Your task to perform on an android device: change keyboard looks Image 0: 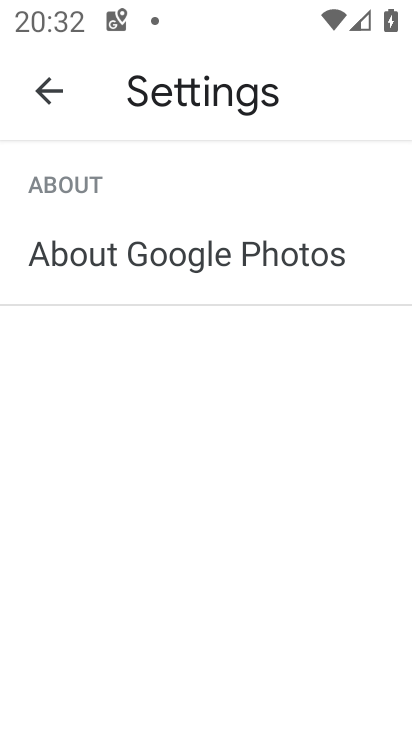
Step 0: click (52, 93)
Your task to perform on an android device: change keyboard looks Image 1: 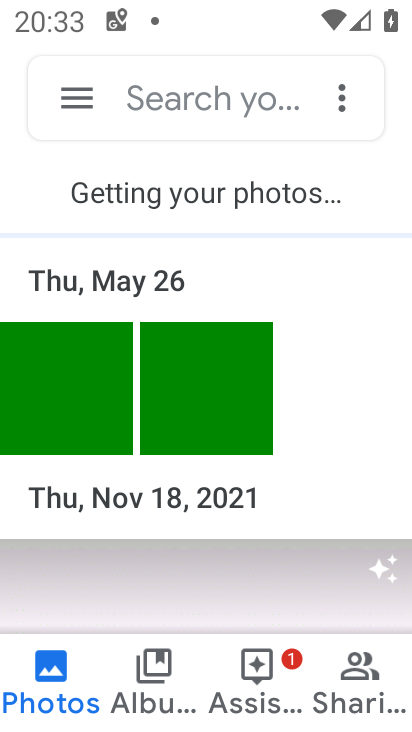
Step 1: press back button
Your task to perform on an android device: change keyboard looks Image 2: 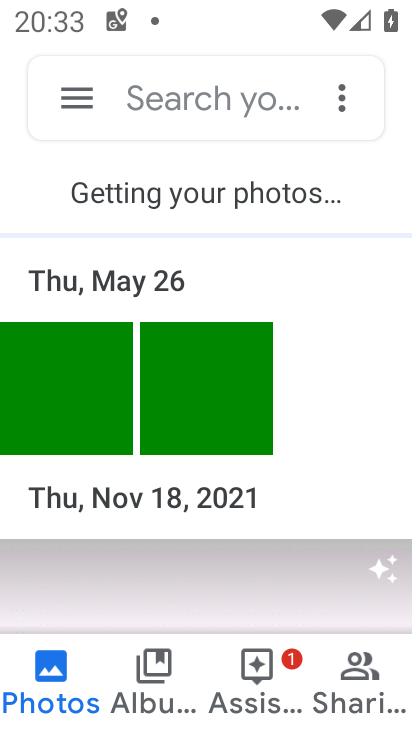
Step 2: press back button
Your task to perform on an android device: change keyboard looks Image 3: 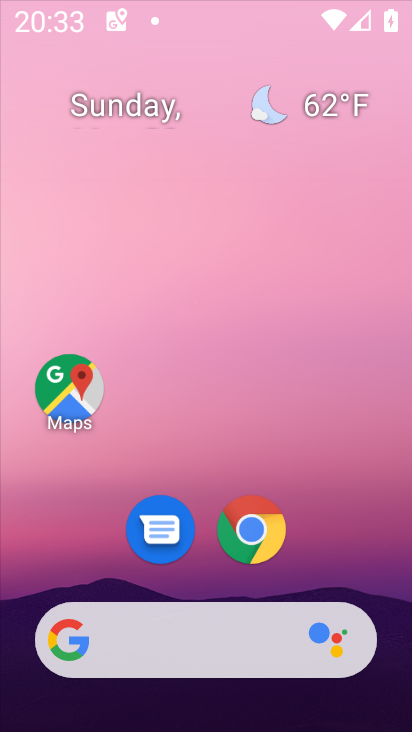
Step 3: press back button
Your task to perform on an android device: change keyboard looks Image 4: 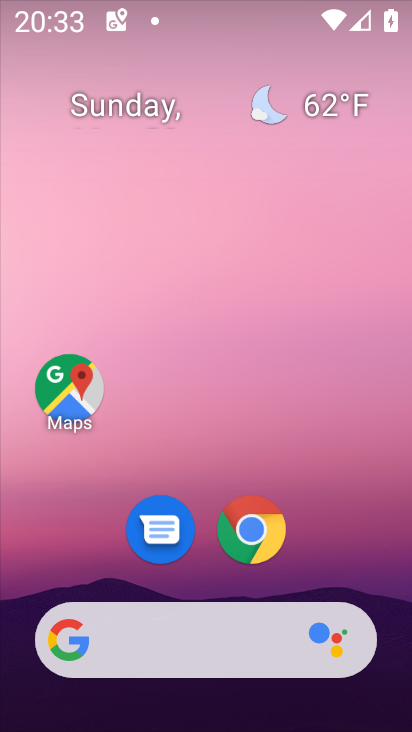
Step 4: press back button
Your task to perform on an android device: change keyboard looks Image 5: 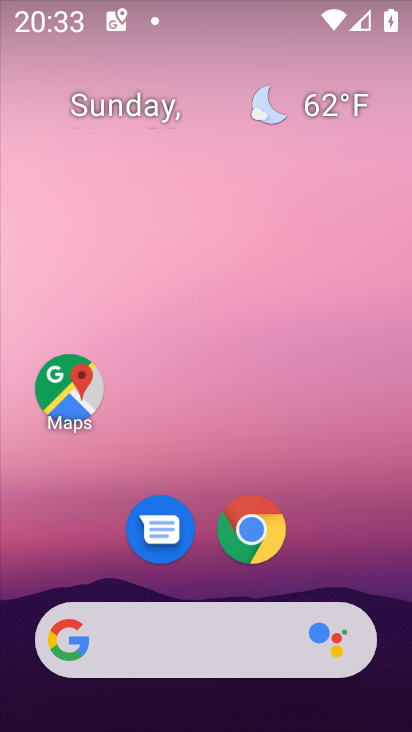
Step 5: press home button
Your task to perform on an android device: change keyboard looks Image 6: 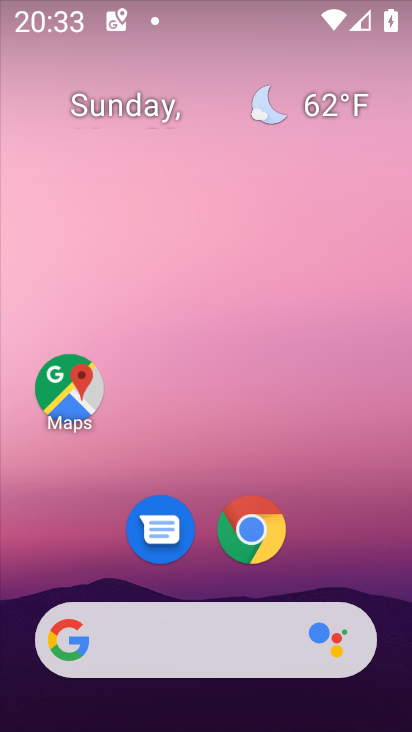
Step 6: press home button
Your task to perform on an android device: change keyboard looks Image 7: 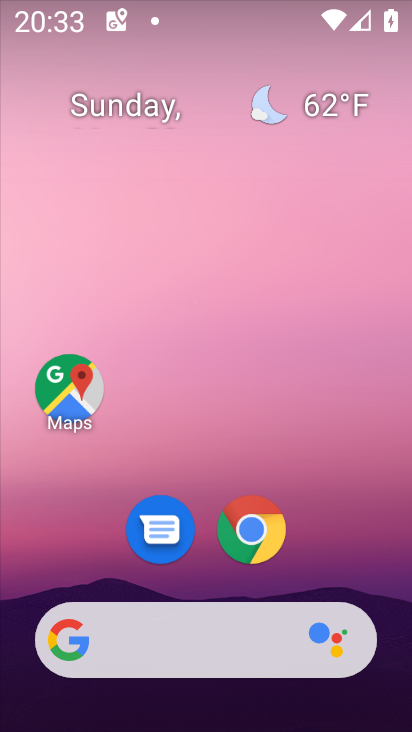
Step 7: drag from (257, 684) to (222, 85)
Your task to perform on an android device: change keyboard looks Image 8: 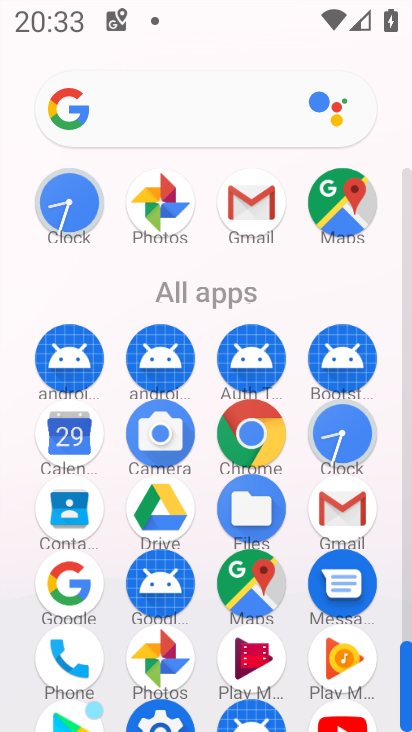
Step 8: drag from (243, 586) to (226, 217)
Your task to perform on an android device: change keyboard looks Image 9: 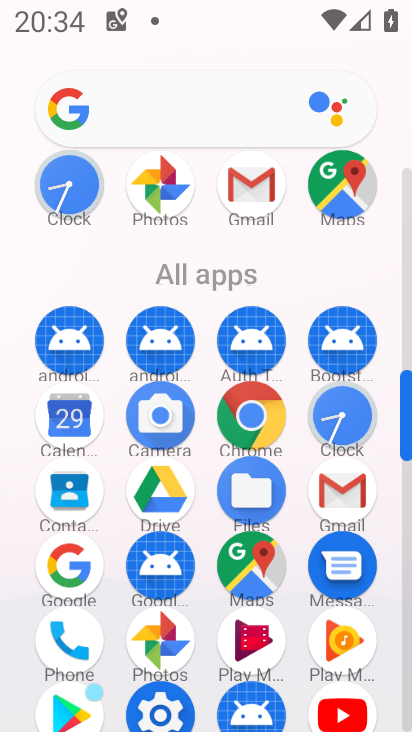
Step 9: drag from (186, 493) to (230, 288)
Your task to perform on an android device: change keyboard looks Image 10: 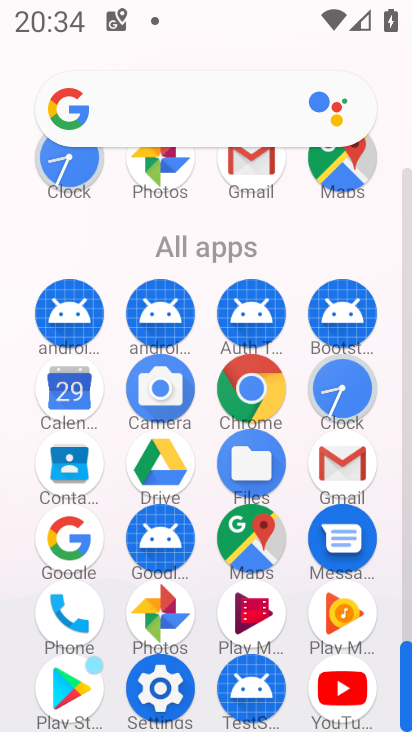
Step 10: drag from (175, 473) to (224, 155)
Your task to perform on an android device: change keyboard looks Image 11: 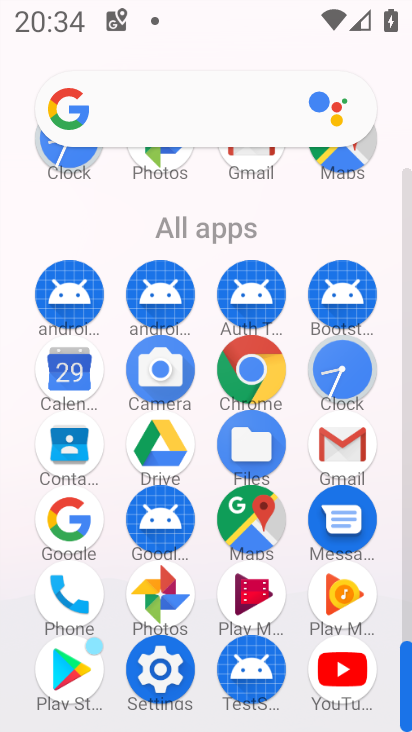
Step 11: drag from (253, 466) to (253, 227)
Your task to perform on an android device: change keyboard looks Image 12: 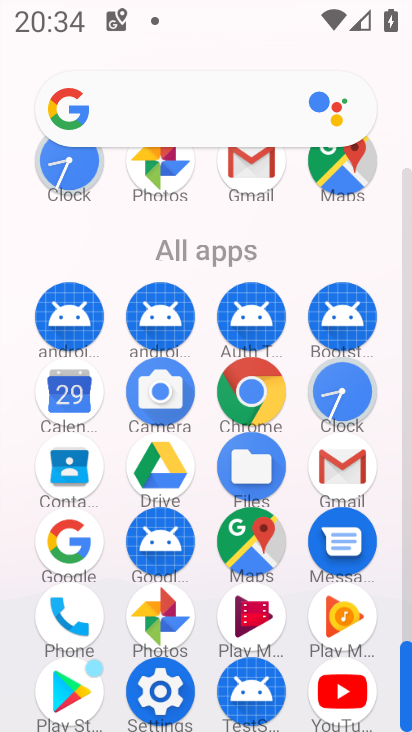
Step 12: click (151, 688)
Your task to perform on an android device: change keyboard looks Image 13: 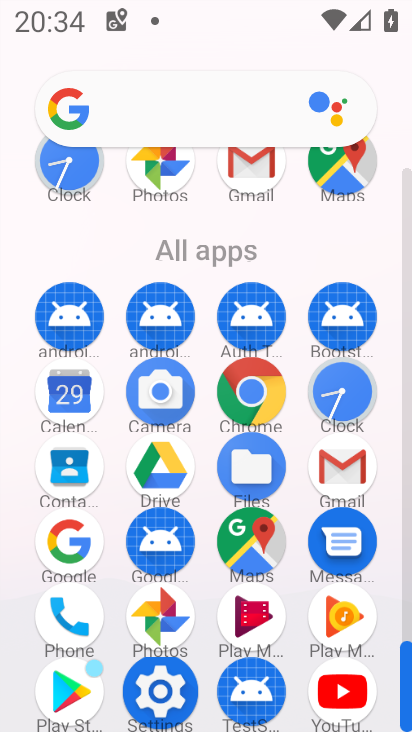
Step 13: click (155, 695)
Your task to perform on an android device: change keyboard looks Image 14: 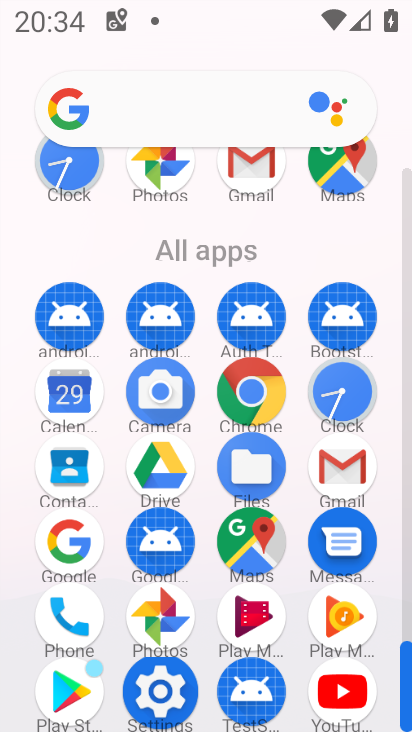
Step 14: click (155, 695)
Your task to perform on an android device: change keyboard looks Image 15: 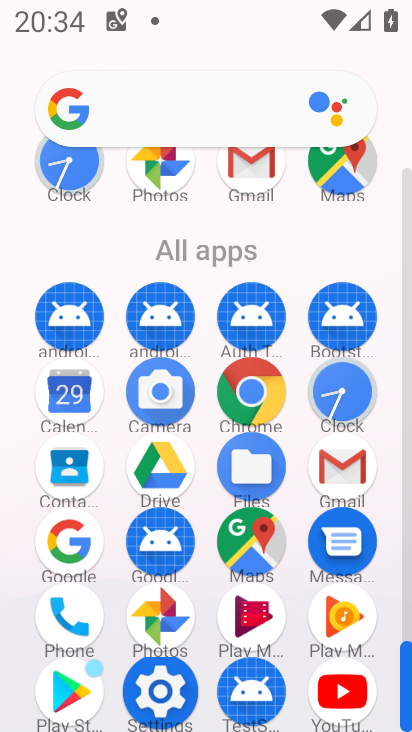
Step 15: click (155, 695)
Your task to perform on an android device: change keyboard looks Image 16: 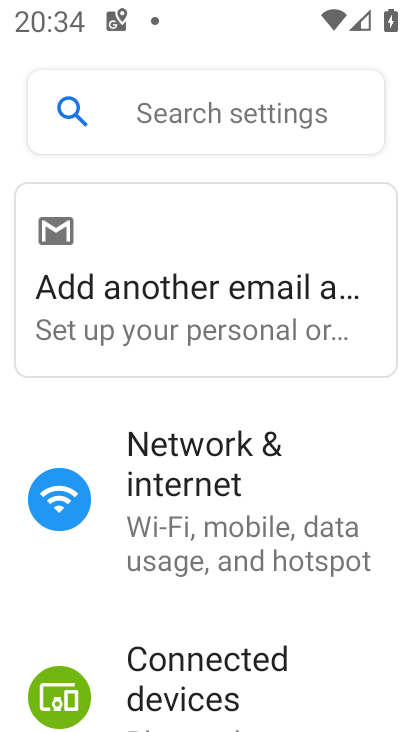
Step 16: drag from (307, 389) to (327, 275)
Your task to perform on an android device: change keyboard looks Image 17: 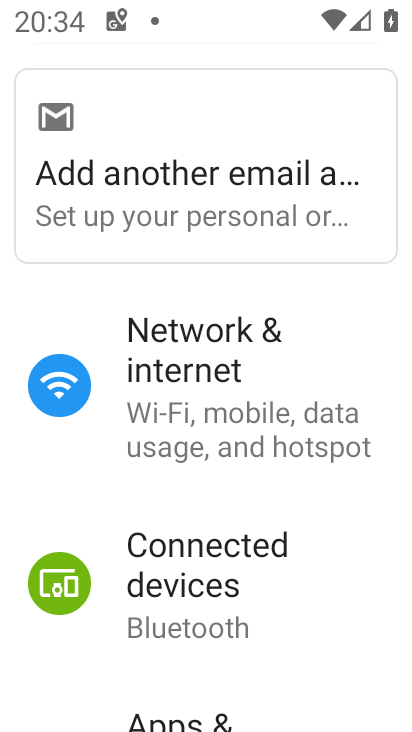
Step 17: drag from (243, 512) to (239, 187)
Your task to perform on an android device: change keyboard looks Image 18: 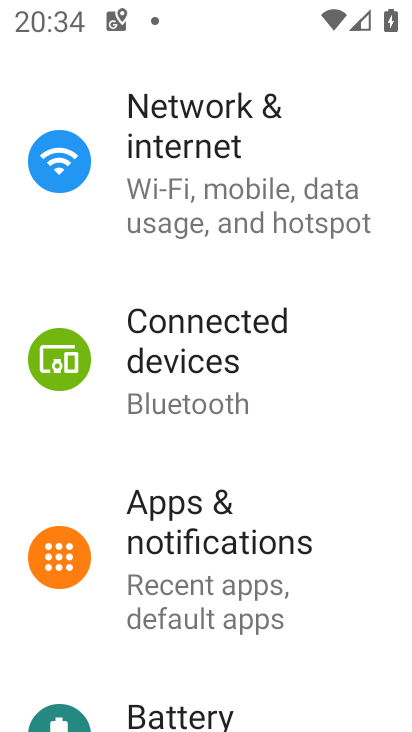
Step 18: drag from (200, 585) to (197, 230)
Your task to perform on an android device: change keyboard looks Image 19: 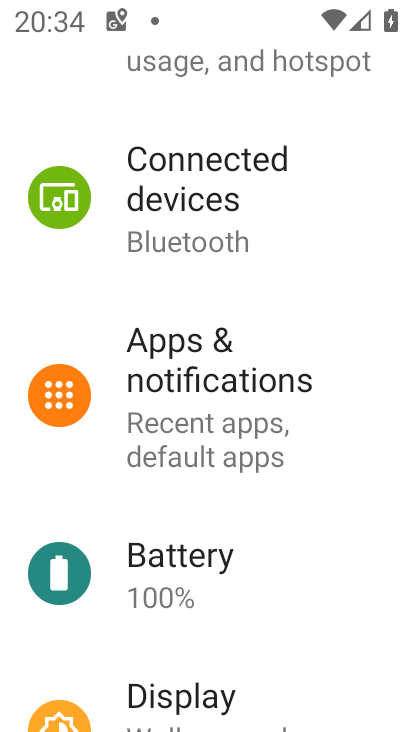
Step 19: drag from (237, 540) to (191, 175)
Your task to perform on an android device: change keyboard looks Image 20: 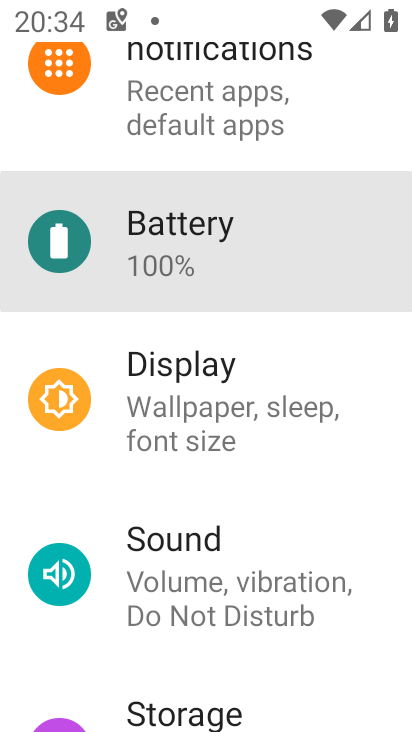
Step 20: drag from (186, 553) to (167, 220)
Your task to perform on an android device: change keyboard looks Image 21: 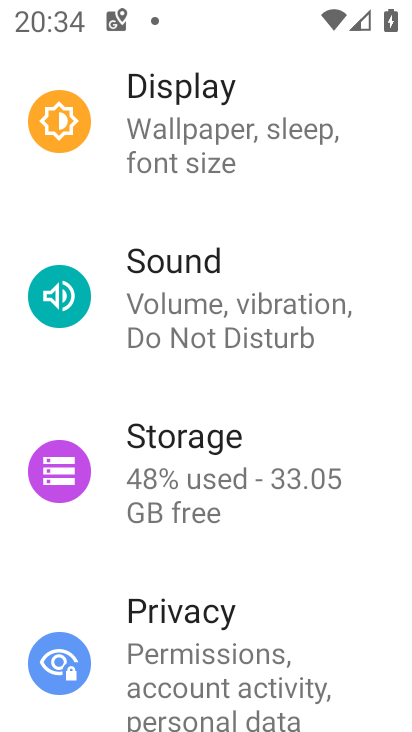
Step 21: drag from (218, 552) to (215, 236)
Your task to perform on an android device: change keyboard looks Image 22: 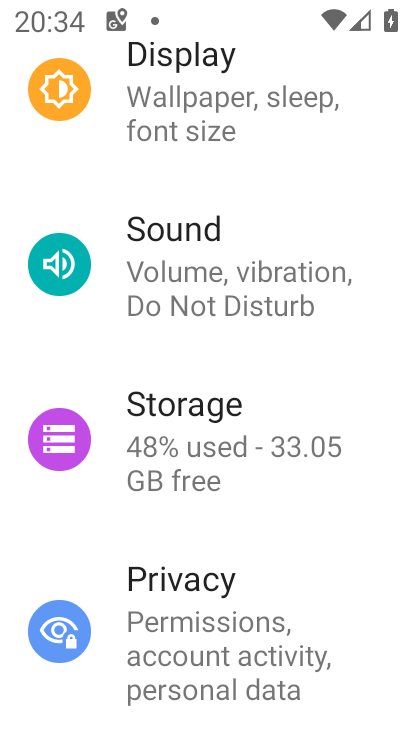
Step 22: drag from (241, 585) to (216, 194)
Your task to perform on an android device: change keyboard looks Image 23: 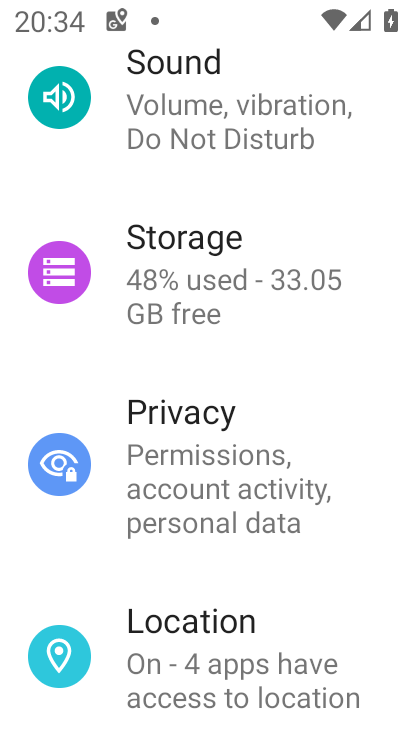
Step 23: drag from (197, 305) to (197, 149)
Your task to perform on an android device: change keyboard looks Image 24: 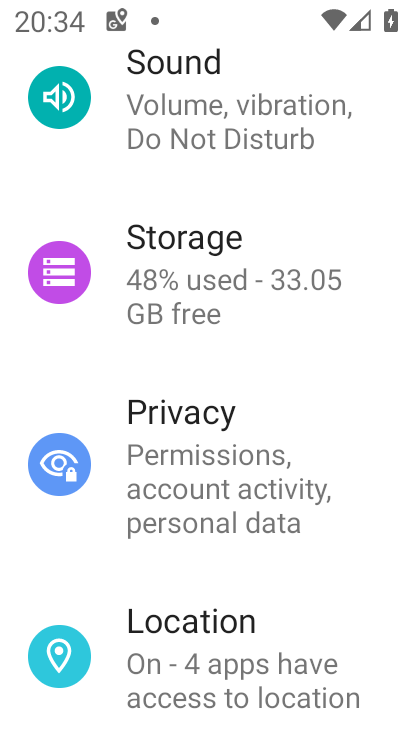
Step 24: drag from (247, 531) to (238, 154)
Your task to perform on an android device: change keyboard looks Image 25: 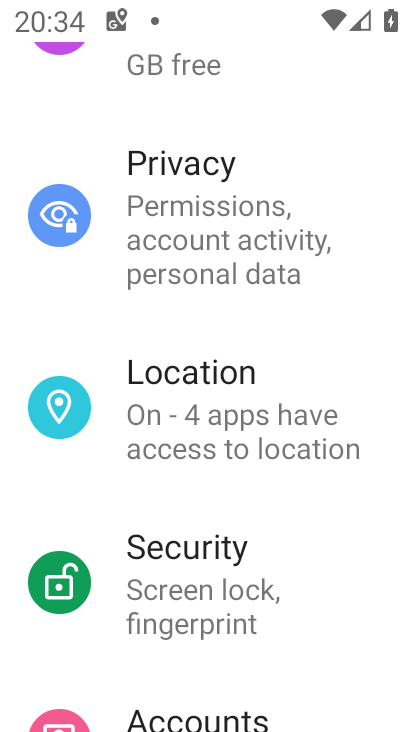
Step 25: drag from (204, 429) to (217, 96)
Your task to perform on an android device: change keyboard looks Image 26: 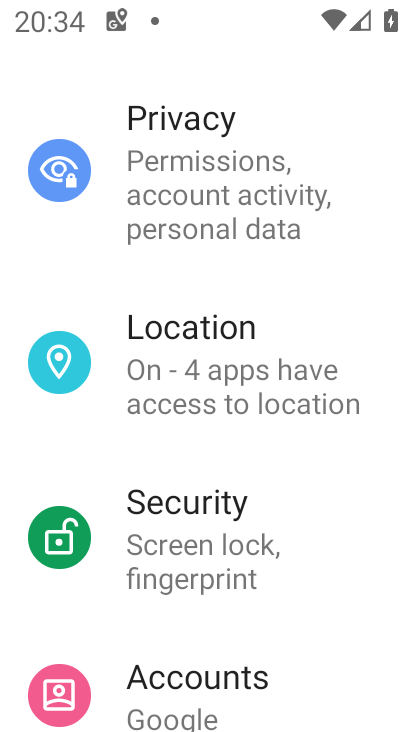
Step 26: drag from (264, 527) to (242, 179)
Your task to perform on an android device: change keyboard looks Image 27: 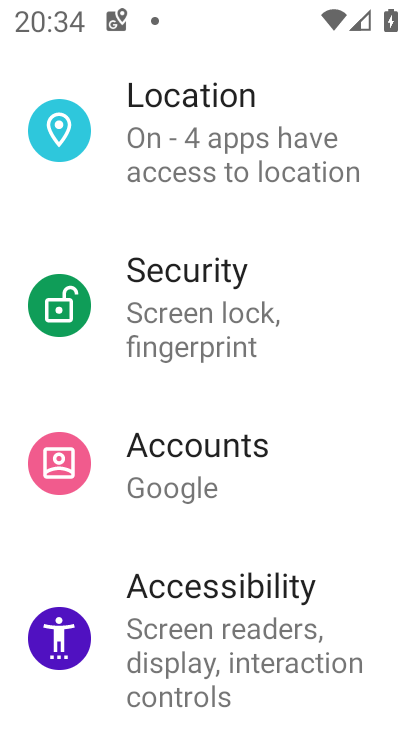
Step 27: drag from (219, 493) to (184, 159)
Your task to perform on an android device: change keyboard looks Image 28: 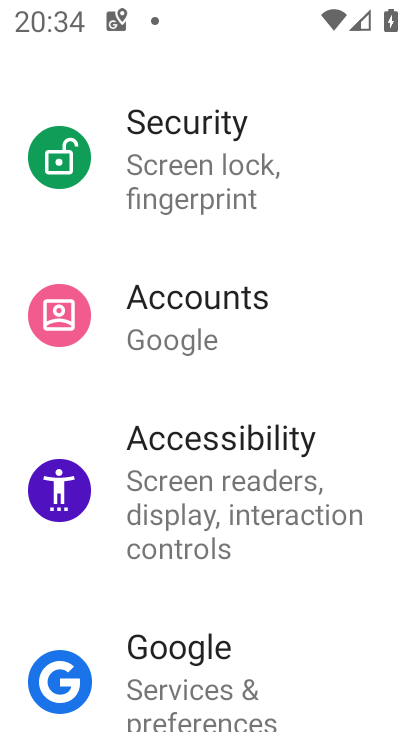
Step 28: drag from (212, 664) to (212, 299)
Your task to perform on an android device: change keyboard looks Image 29: 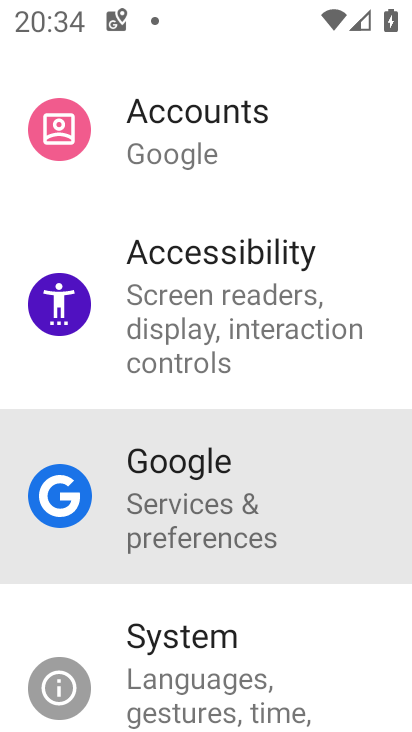
Step 29: drag from (217, 461) to (217, 181)
Your task to perform on an android device: change keyboard looks Image 30: 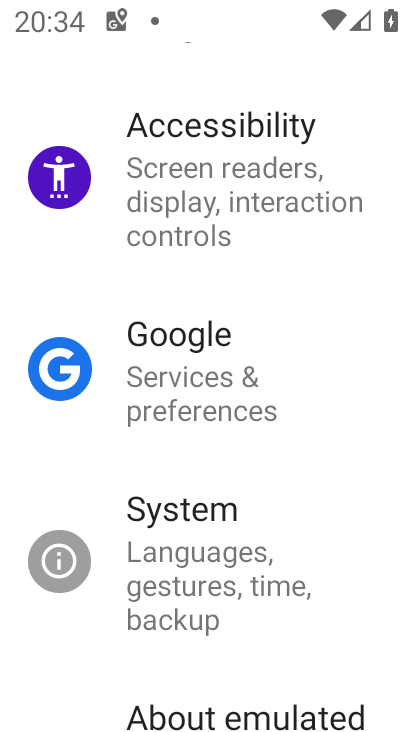
Step 30: drag from (228, 458) to (228, 117)
Your task to perform on an android device: change keyboard looks Image 31: 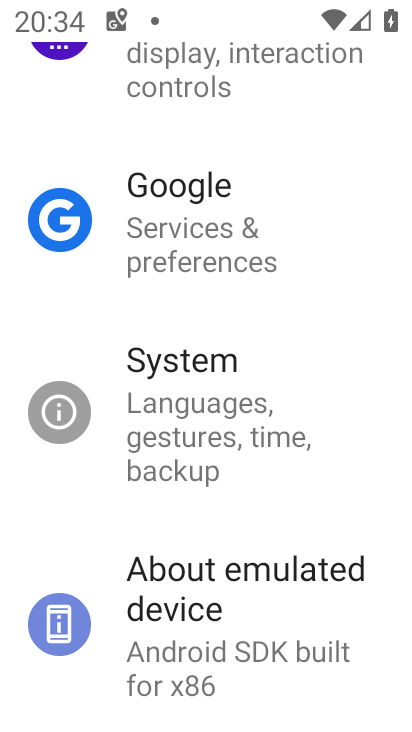
Step 31: click (185, 403)
Your task to perform on an android device: change keyboard looks Image 32: 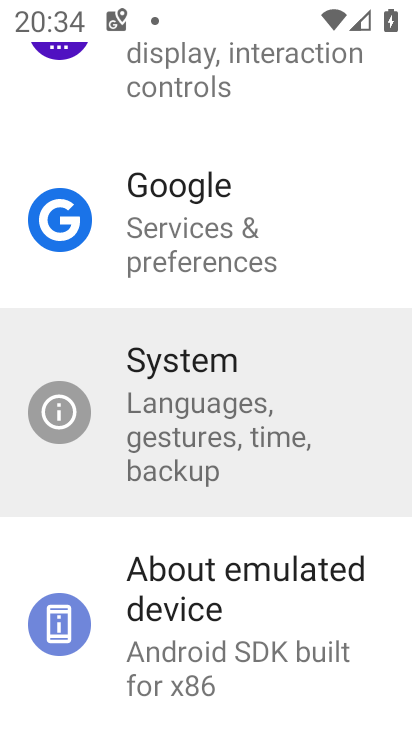
Step 32: click (185, 403)
Your task to perform on an android device: change keyboard looks Image 33: 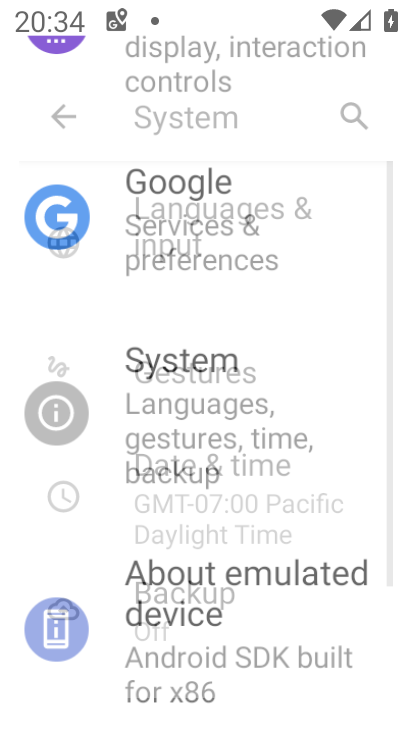
Step 33: click (185, 403)
Your task to perform on an android device: change keyboard looks Image 34: 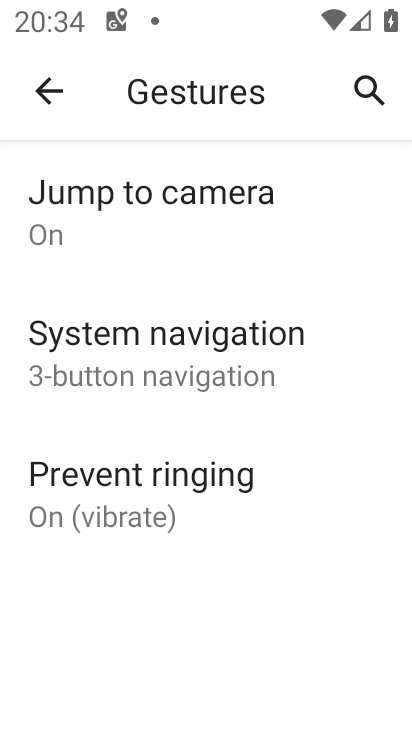
Step 34: click (44, 95)
Your task to perform on an android device: change keyboard looks Image 35: 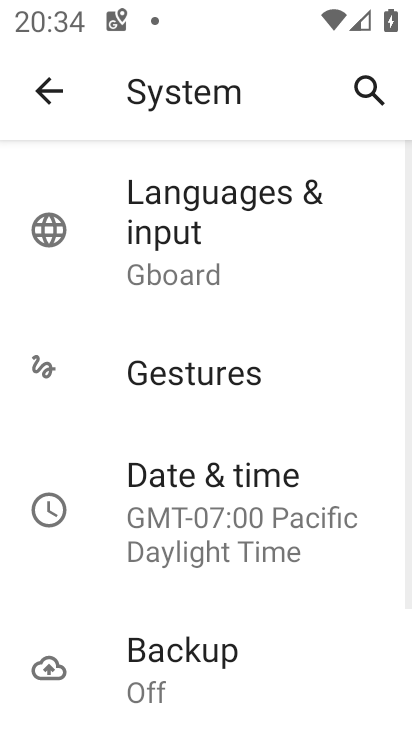
Step 35: click (175, 235)
Your task to perform on an android device: change keyboard looks Image 36: 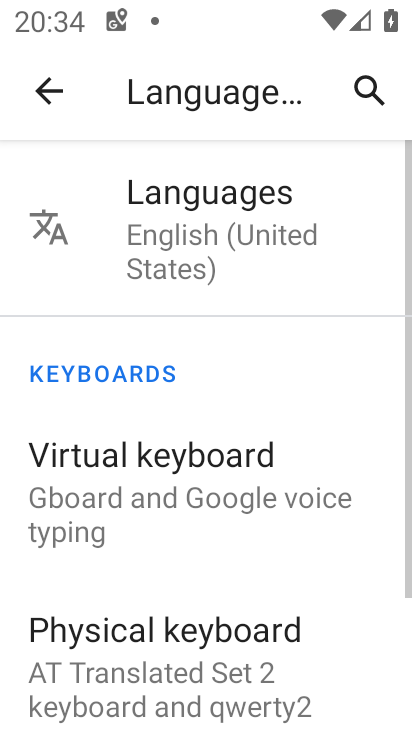
Step 36: click (175, 196)
Your task to perform on an android device: change keyboard looks Image 37: 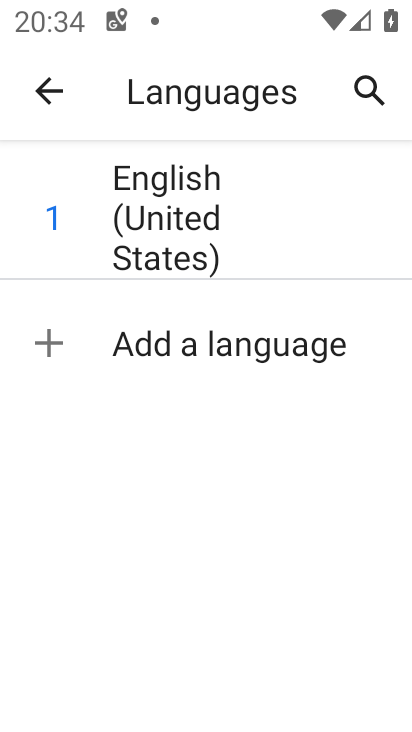
Step 37: click (124, 500)
Your task to perform on an android device: change keyboard looks Image 38: 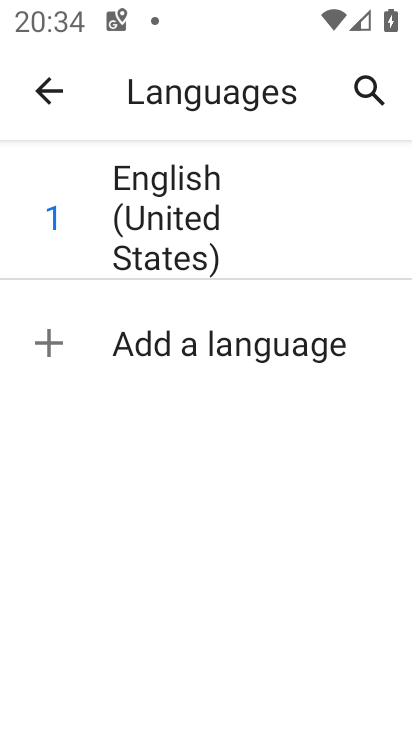
Step 38: click (47, 91)
Your task to perform on an android device: change keyboard looks Image 39: 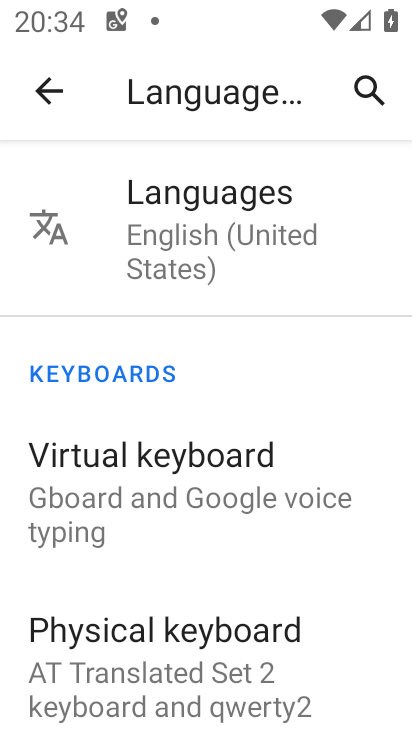
Step 39: click (134, 494)
Your task to perform on an android device: change keyboard looks Image 40: 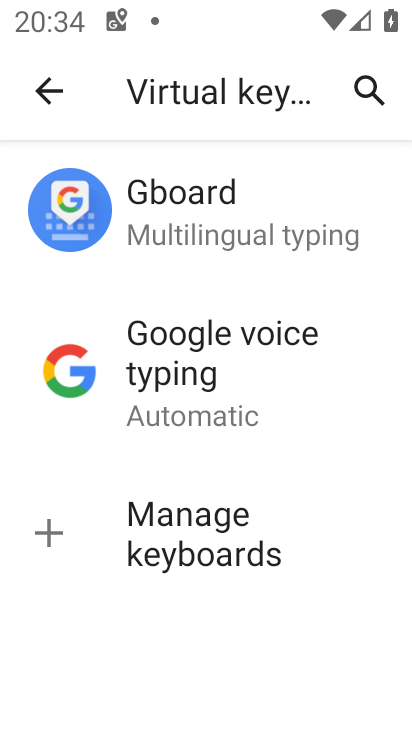
Step 40: click (180, 221)
Your task to perform on an android device: change keyboard looks Image 41: 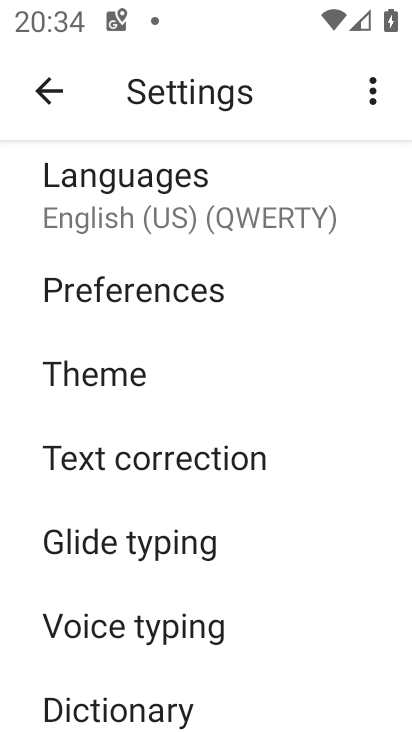
Step 41: click (100, 370)
Your task to perform on an android device: change keyboard looks Image 42: 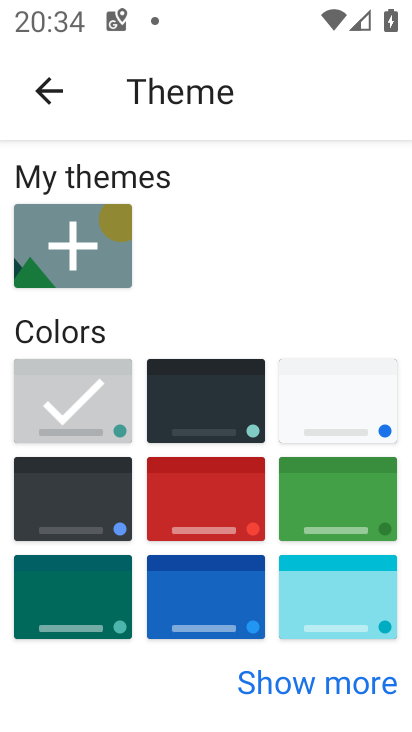
Step 42: click (163, 490)
Your task to perform on an android device: change keyboard looks Image 43: 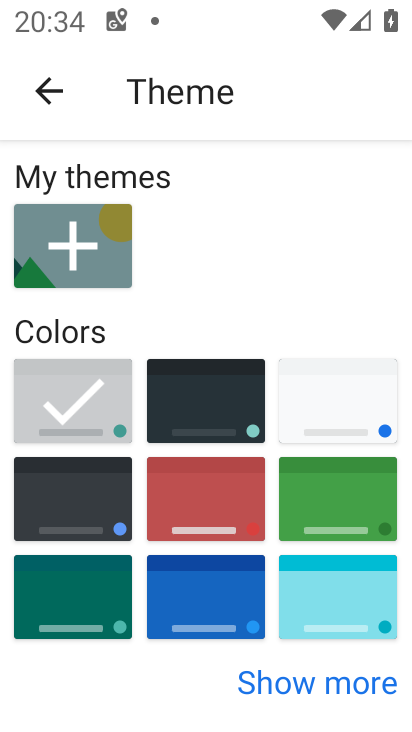
Step 43: click (164, 491)
Your task to perform on an android device: change keyboard looks Image 44: 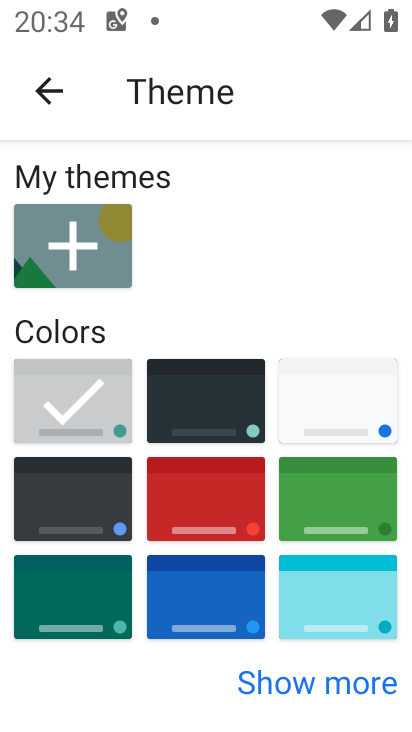
Step 44: click (176, 506)
Your task to perform on an android device: change keyboard looks Image 45: 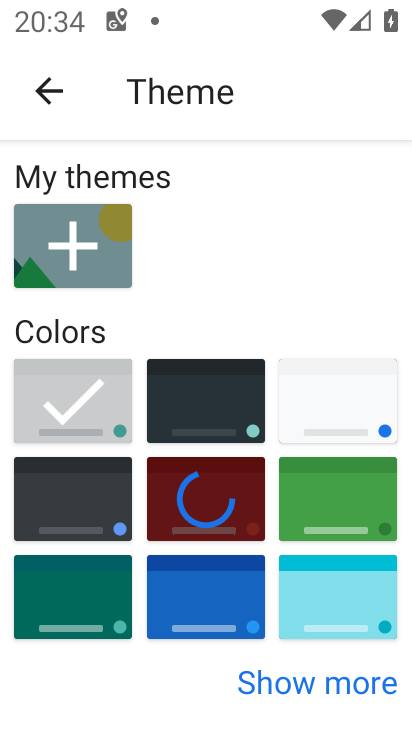
Step 45: click (176, 506)
Your task to perform on an android device: change keyboard looks Image 46: 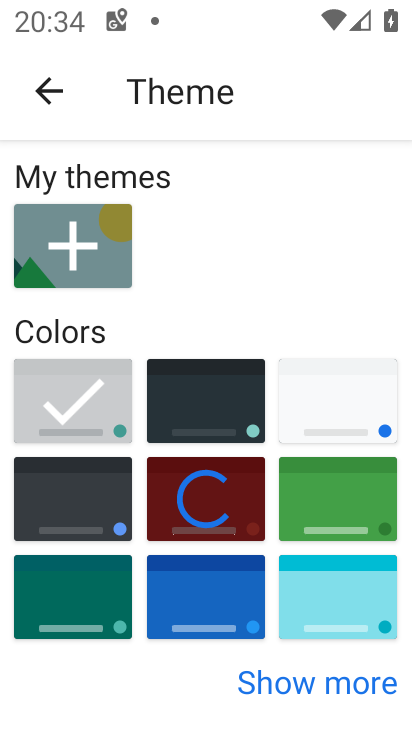
Step 46: click (177, 506)
Your task to perform on an android device: change keyboard looks Image 47: 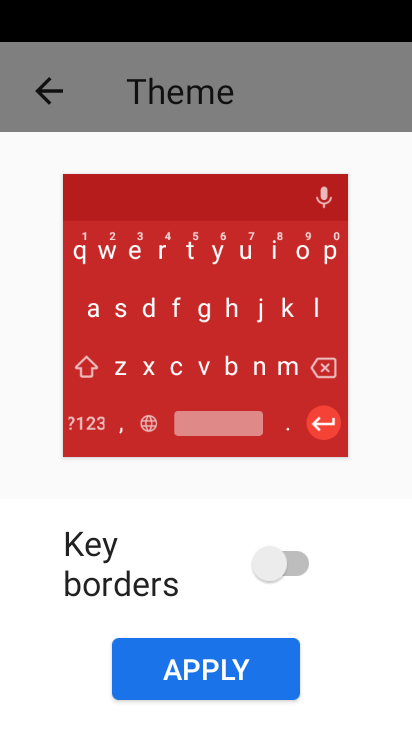
Step 47: click (202, 674)
Your task to perform on an android device: change keyboard looks Image 48: 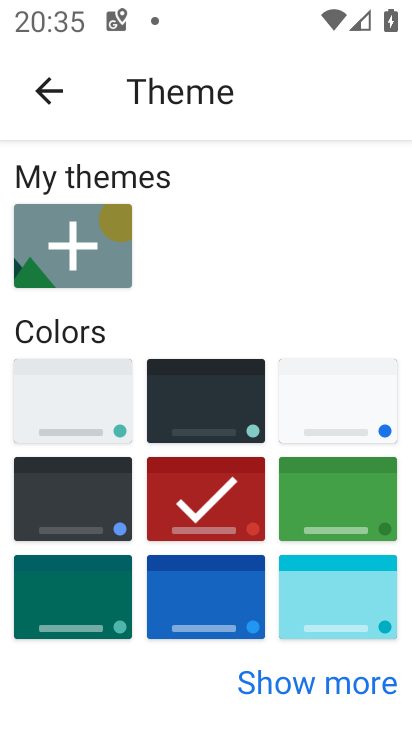
Step 48: task complete